Your task to perform on an android device: Go to Google Image 0: 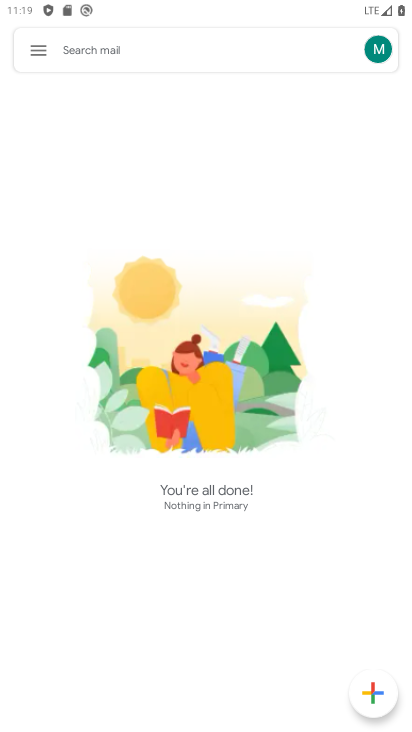
Step 0: press home button
Your task to perform on an android device: Go to Google Image 1: 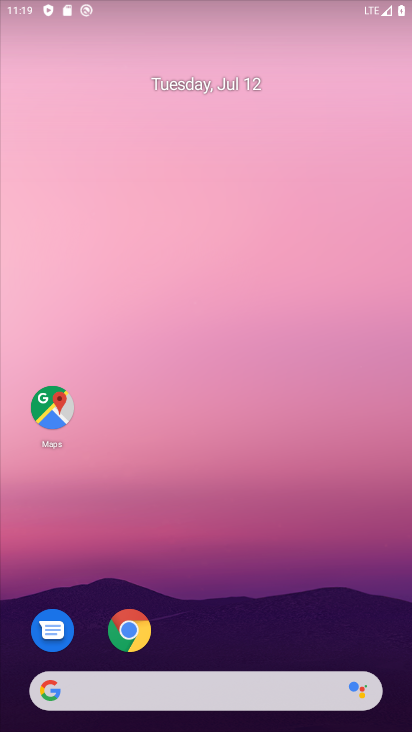
Step 1: drag from (392, 694) to (223, 25)
Your task to perform on an android device: Go to Google Image 2: 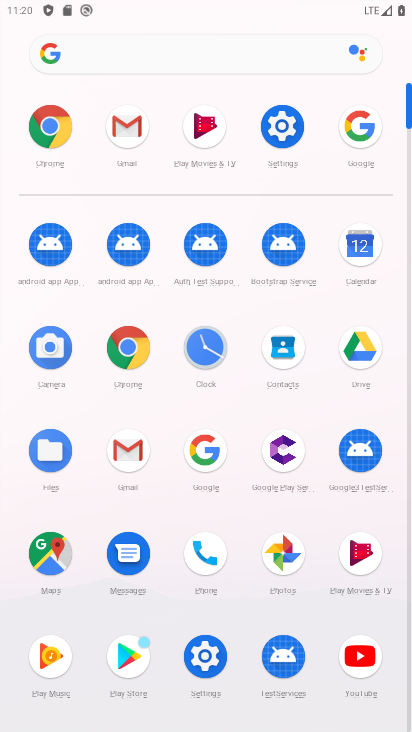
Step 2: click (212, 455)
Your task to perform on an android device: Go to Google Image 3: 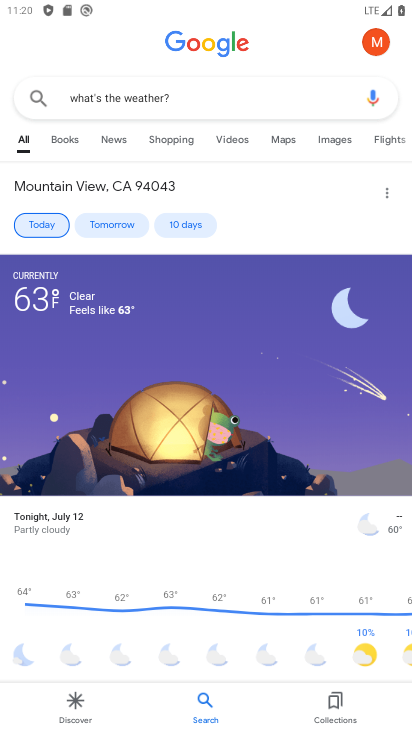
Step 3: task complete